Your task to perform on an android device: What's the weather today? Image 0: 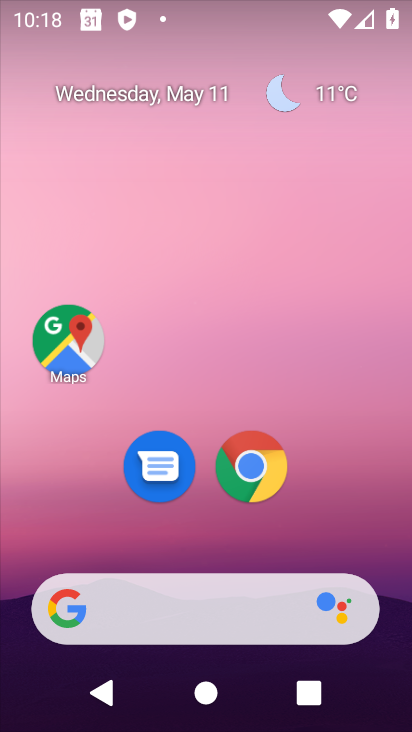
Step 0: drag from (366, 518) to (323, 226)
Your task to perform on an android device: What's the weather today? Image 1: 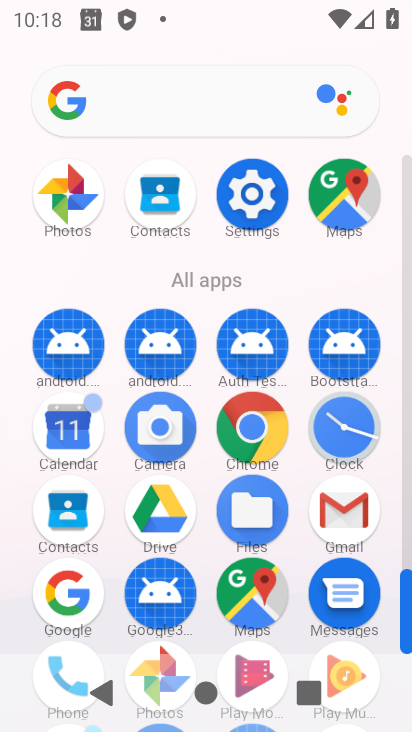
Step 1: click (255, 427)
Your task to perform on an android device: What's the weather today? Image 2: 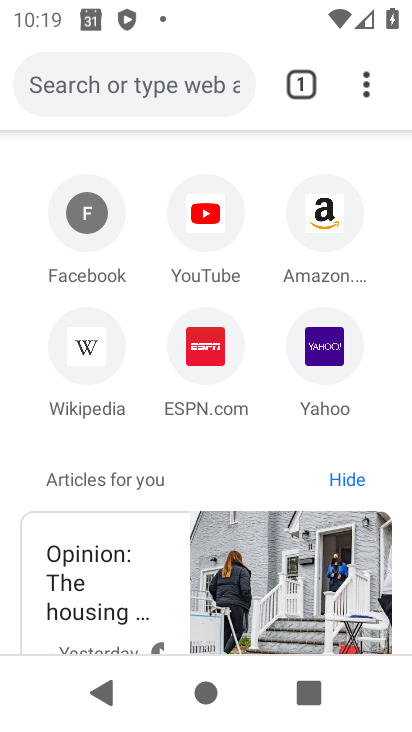
Step 2: press home button
Your task to perform on an android device: What's the weather today? Image 3: 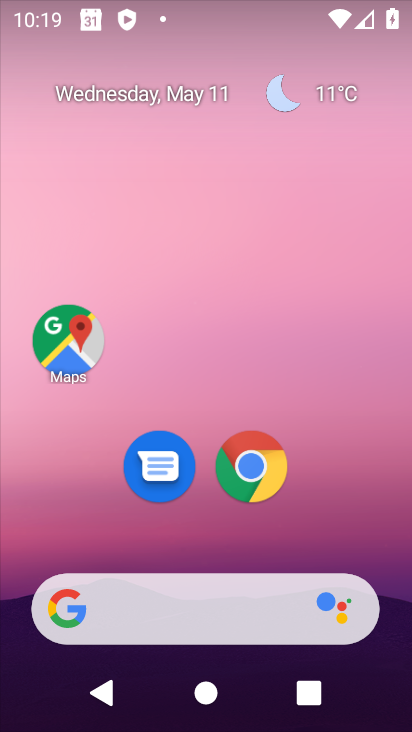
Step 3: click (336, 93)
Your task to perform on an android device: What's the weather today? Image 4: 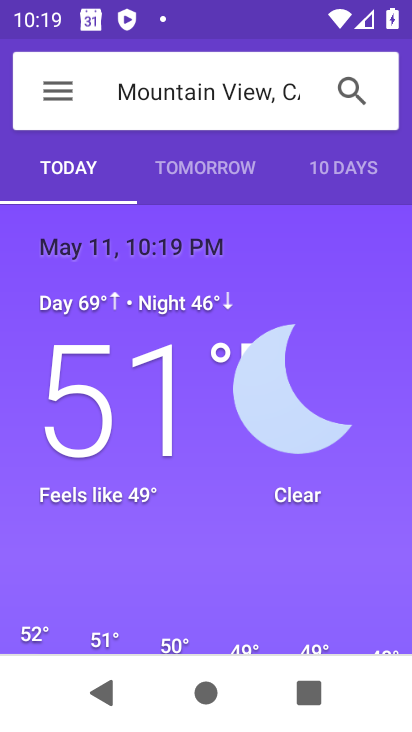
Step 4: task complete